Your task to perform on an android device: turn off location Image 0: 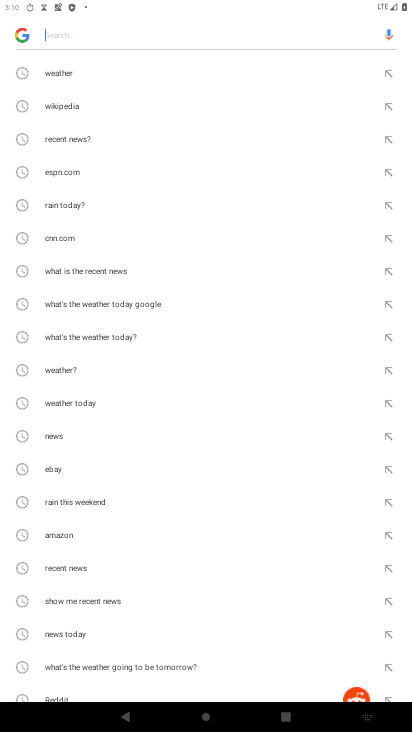
Step 0: press home button
Your task to perform on an android device: turn off location Image 1: 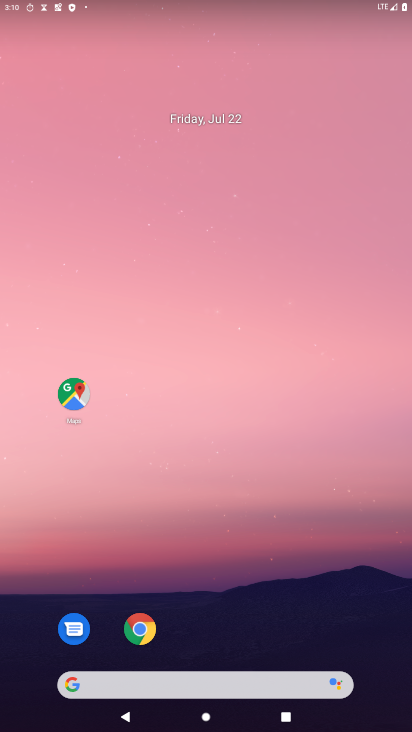
Step 1: drag from (210, 566) to (311, 12)
Your task to perform on an android device: turn off location Image 2: 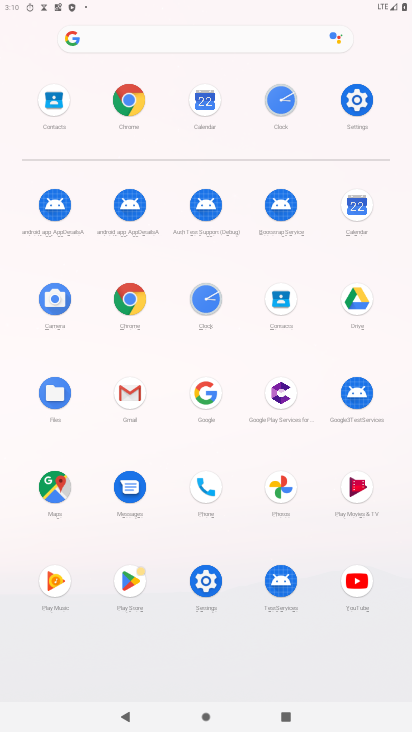
Step 2: click (356, 106)
Your task to perform on an android device: turn off location Image 3: 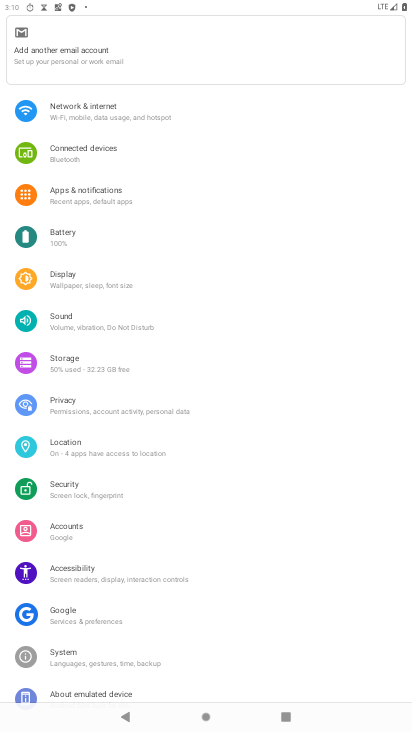
Step 3: click (101, 449)
Your task to perform on an android device: turn off location Image 4: 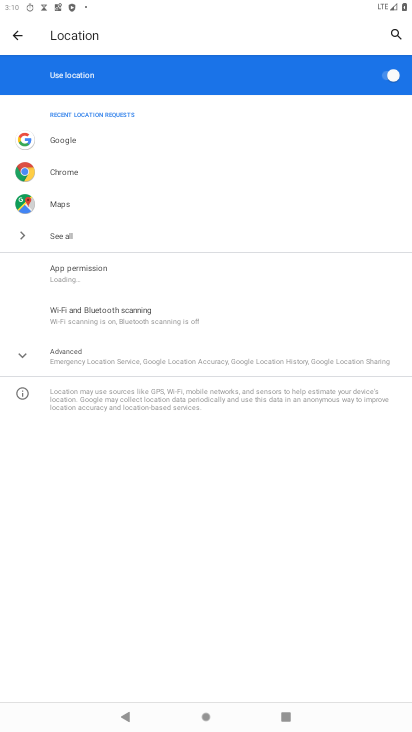
Step 4: click (385, 77)
Your task to perform on an android device: turn off location Image 5: 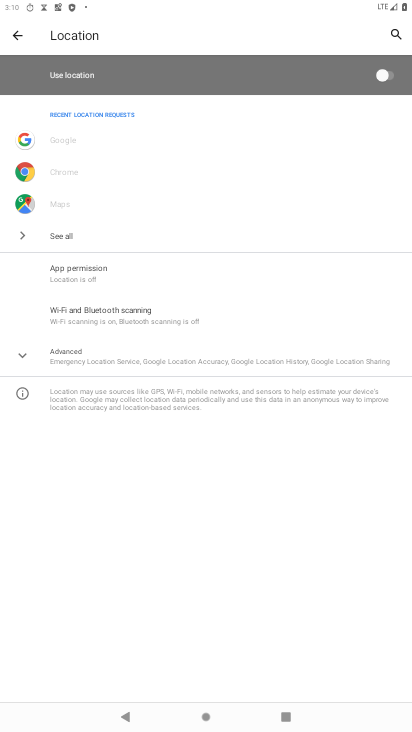
Step 5: task complete